Your task to perform on an android device: Clear the cart on amazon. Add apple airpods to the cart on amazon, then select checkout. Image 0: 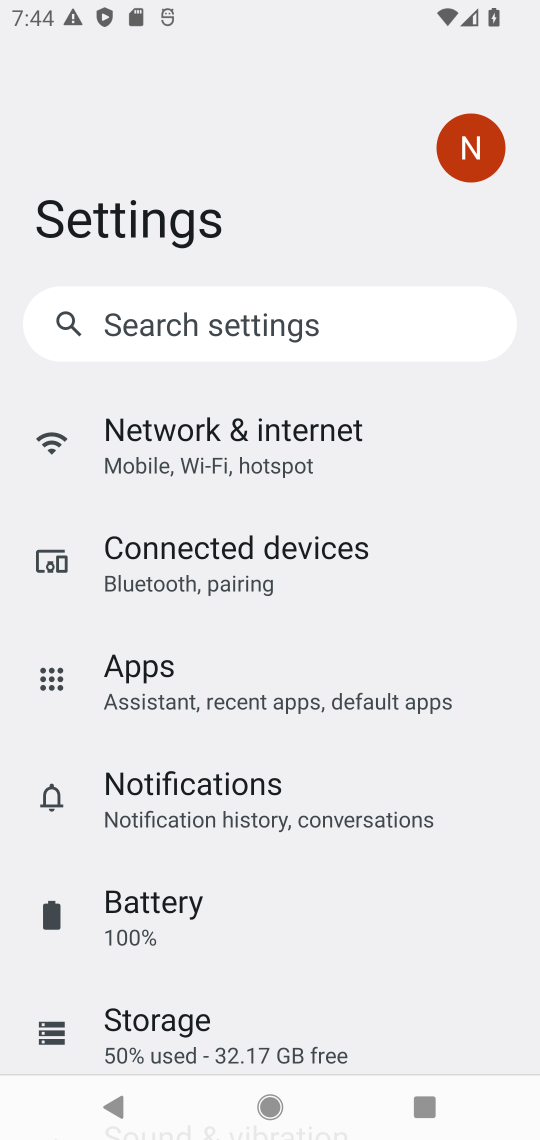
Step 0: press home button
Your task to perform on an android device: Clear the cart on amazon. Add apple airpods to the cart on amazon, then select checkout. Image 1: 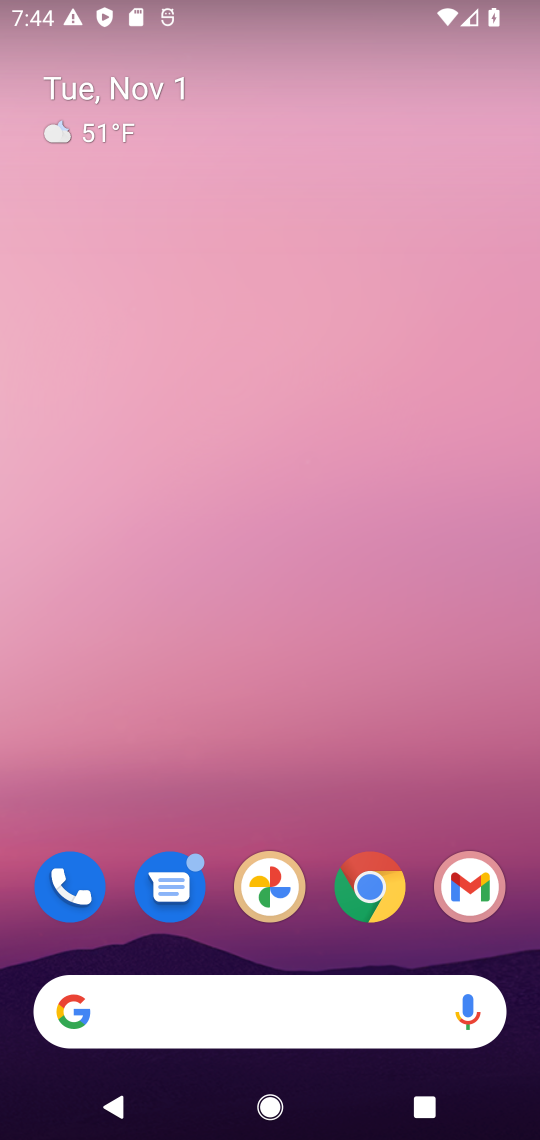
Step 1: drag from (259, 972) to (318, 254)
Your task to perform on an android device: Clear the cart on amazon. Add apple airpods to the cart on amazon, then select checkout. Image 2: 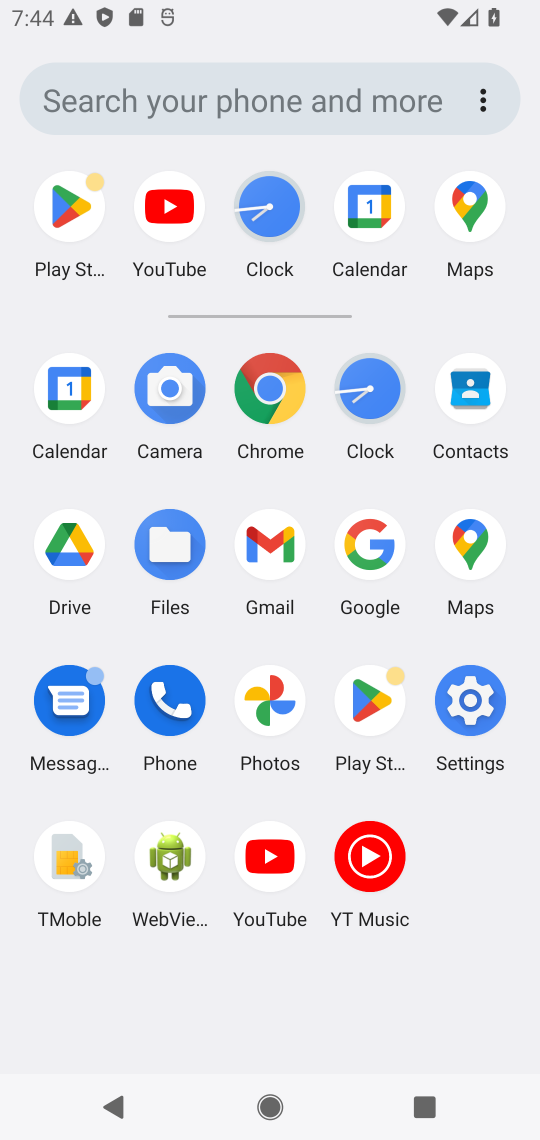
Step 2: click (364, 527)
Your task to perform on an android device: Clear the cart on amazon. Add apple airpods to the cart on amazon, then select checkout. Image 3: 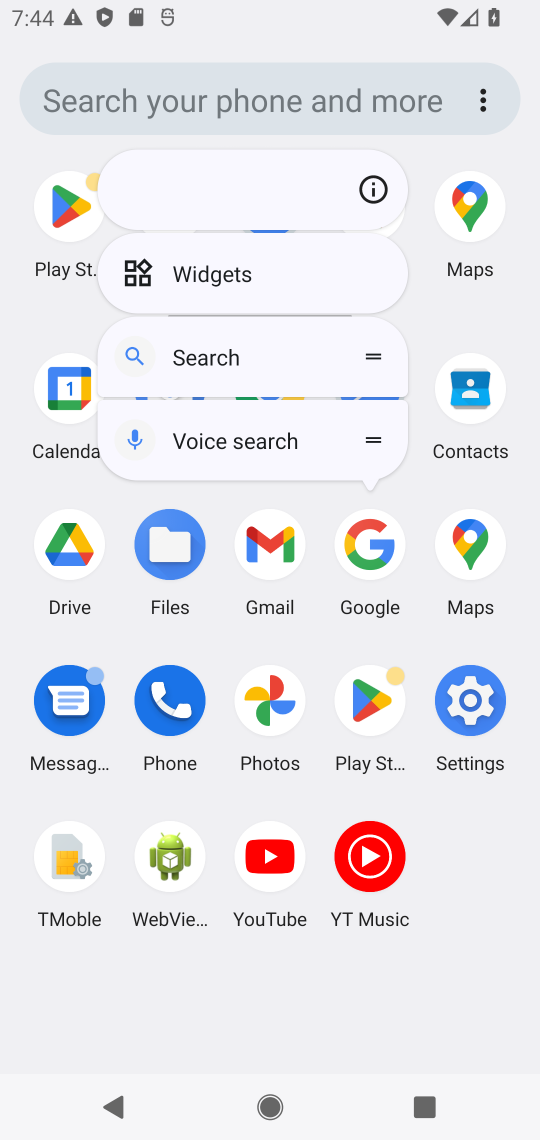
Step 3: click (356, 543)
Your task to perform on an android device: Clear the cart on amazon. Add apple airpods to the cart on amazon, then select checkout. Image 4: 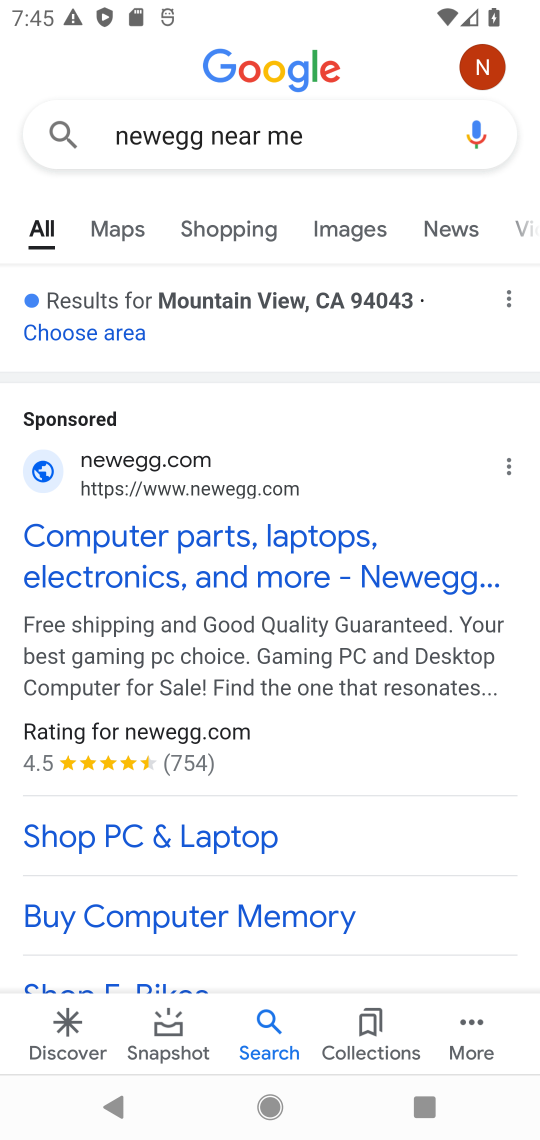
Step 4: click (210, 133)
Your task to perform on an android device: Clear the cart on amazon. Add apple airpods to the cart on amazon, then select checkout. Image 5: 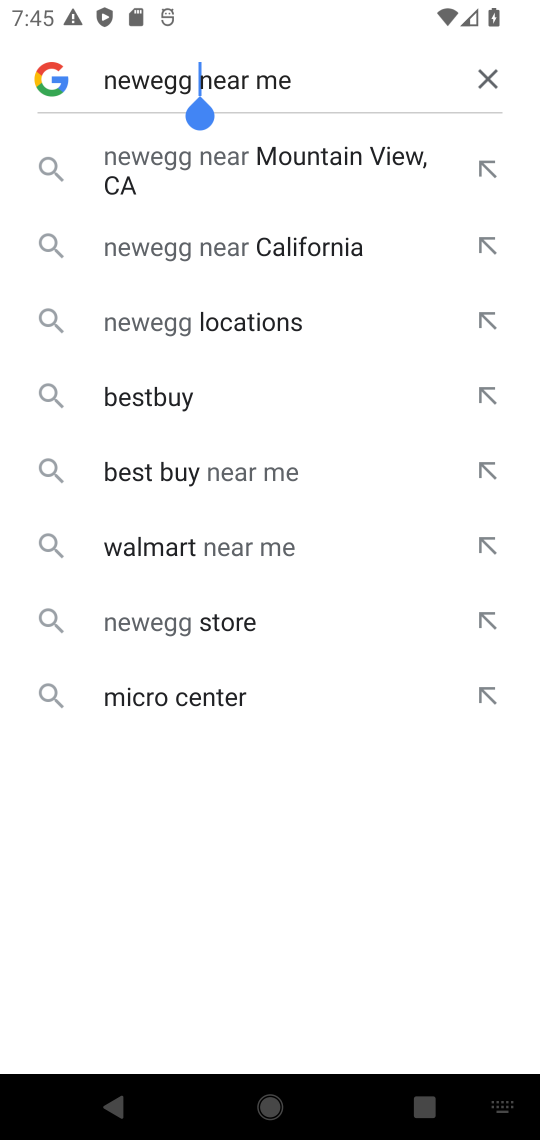
Step 5: click (480, 75)
Your task to perform on an android device: Clear the cart on amazon. Add apple airpods to the cart on amazon, then select checkout. Image 6: 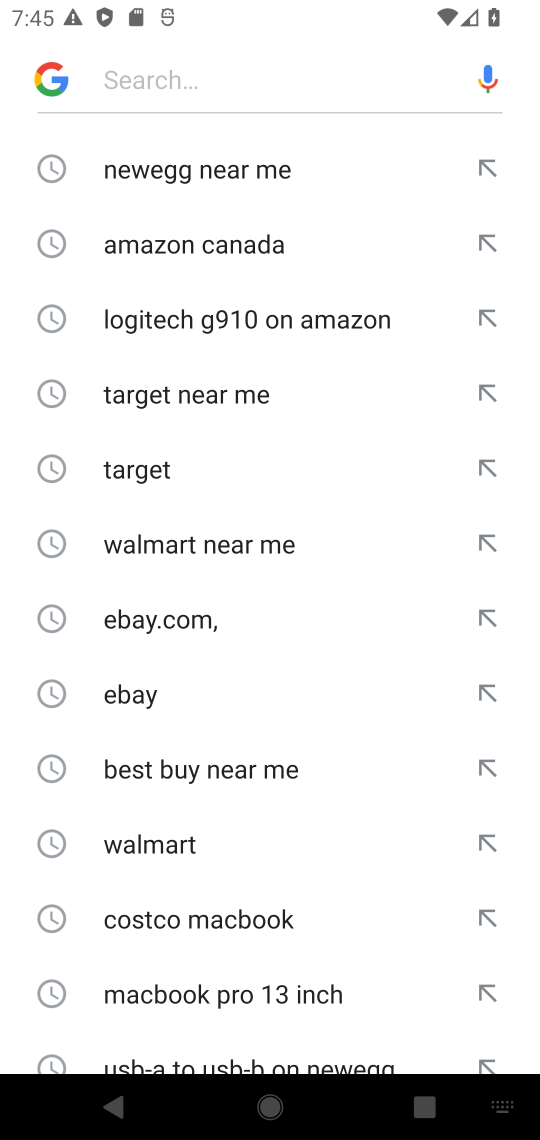
Step 6: click (192, 78)
Your task to perform on an android device: Clear the cart on amazon. Add apple airpods to the cart on amazon, then select checkout. Image 7: 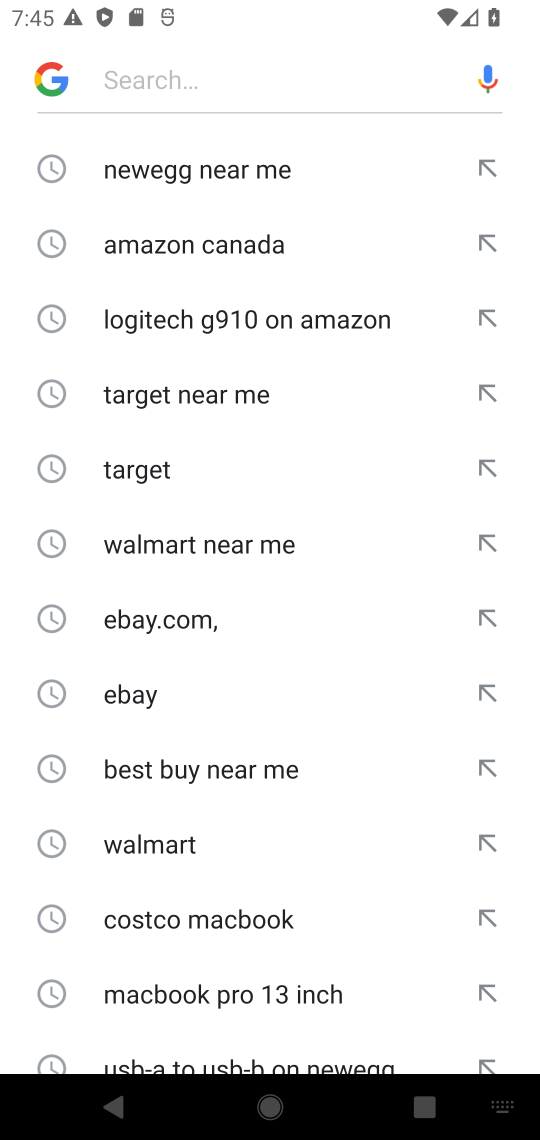
Step 7: type "amazon "
Your task to perform on an android device: Clear the cart on amazon. Add apple airpods to the cart on amazon, then select checkout. Image 8: 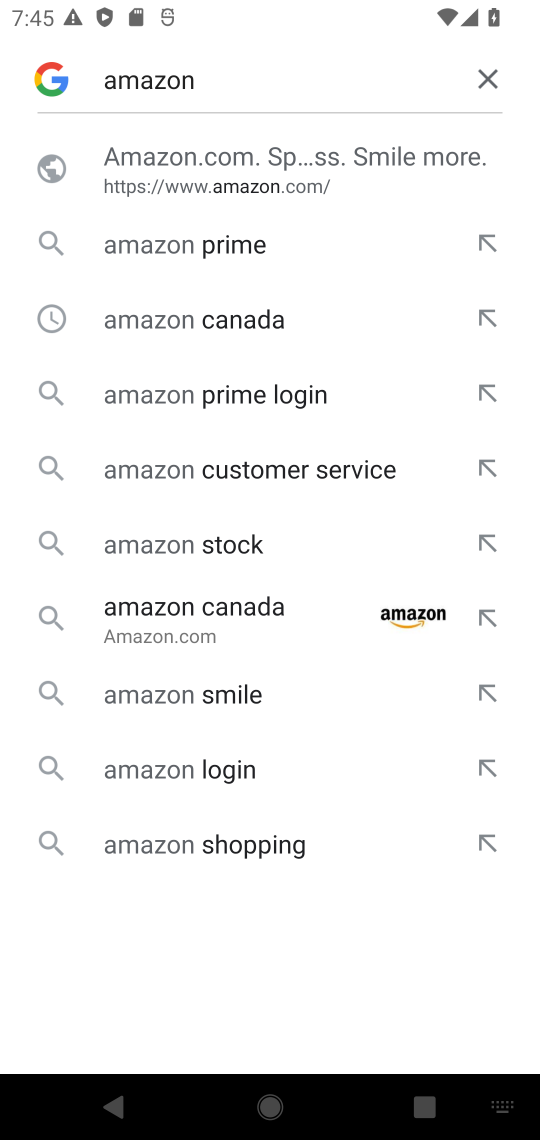
Step 8: click (215, 185)
Your task to perform on an android device: Clear the cart on amazon. Add apple airpods to the cart on amazon, then select checkout. Image 9: 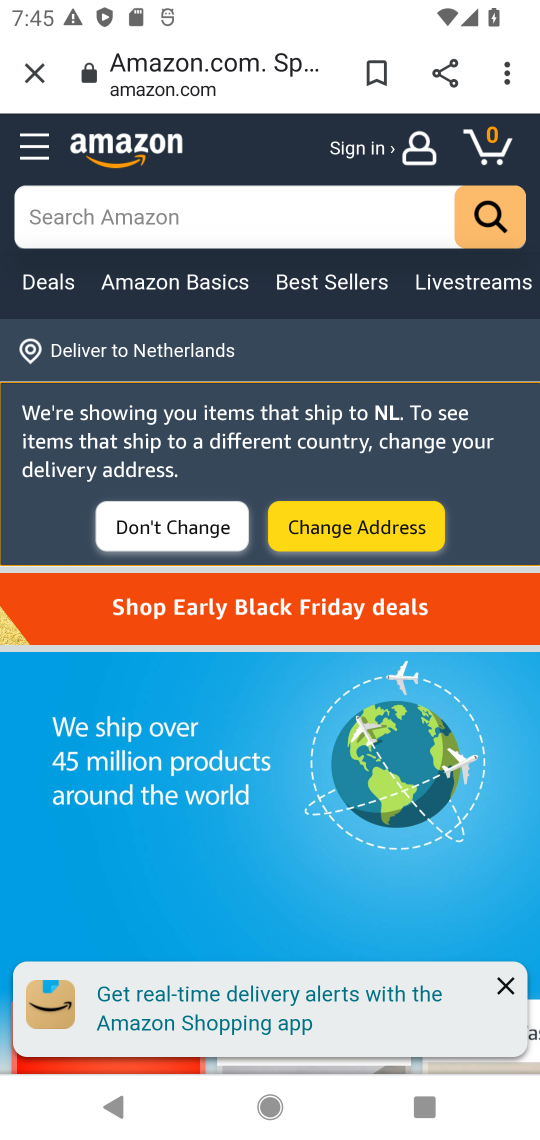
Step 9: click (227, 212)
Your task to perform on an android device: Clear the cart on amazon. Add apple airpods to the cart on amazon, then select checkout. Image 10: 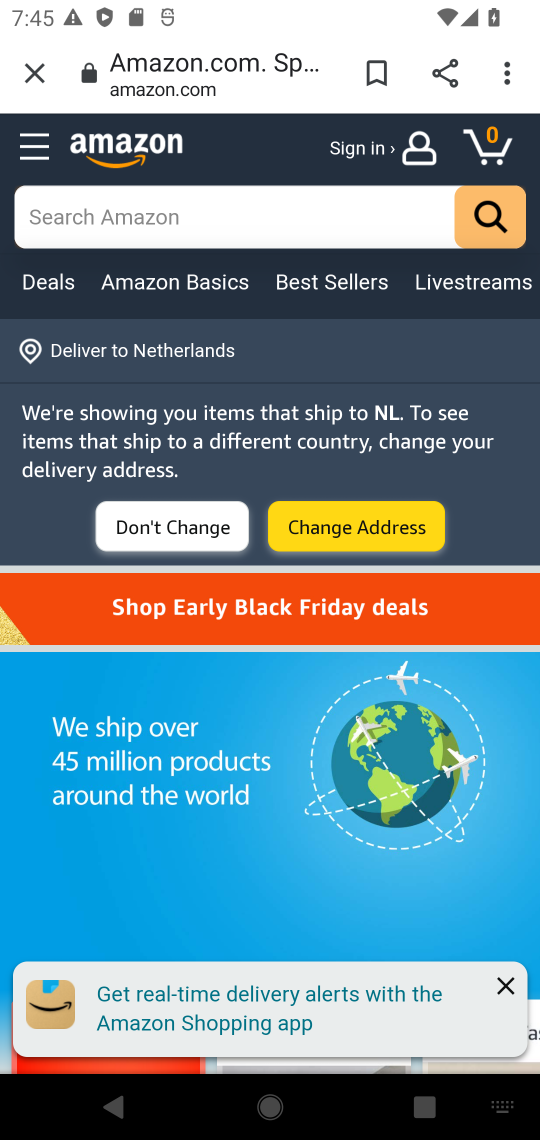
Step 10: type "airpods "
Your task to perform on an android device: Clear the cart on amazon. Add apple airpods to the cart on amazon, then select checkout. Image 11: 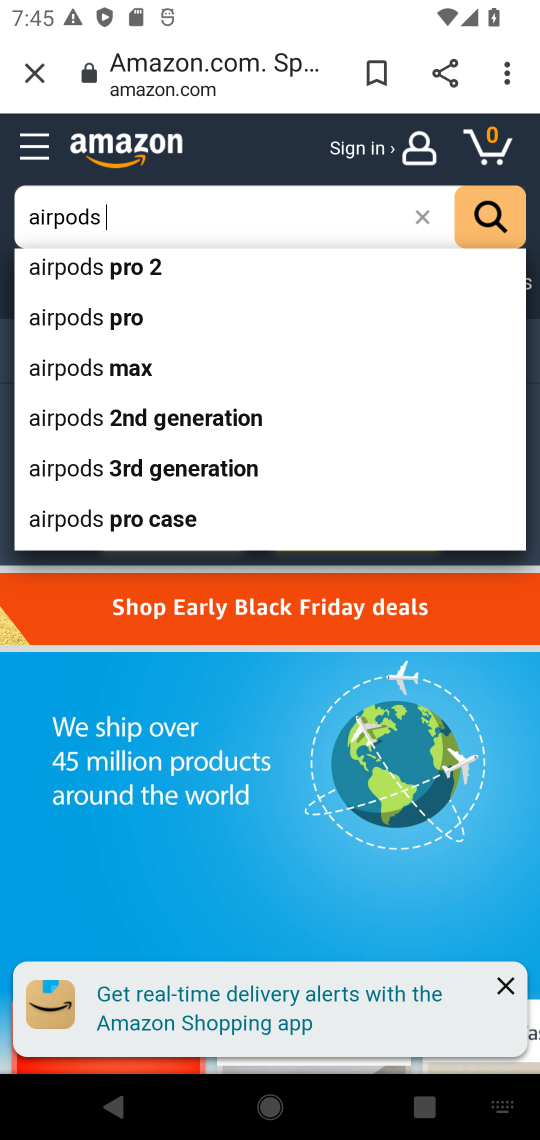
Step 11: click (103, 318)
Your task to perform on an android device: Clear the cart on amazon. Add apple airpods to the cart on amazon, then select checkout. Image 12: 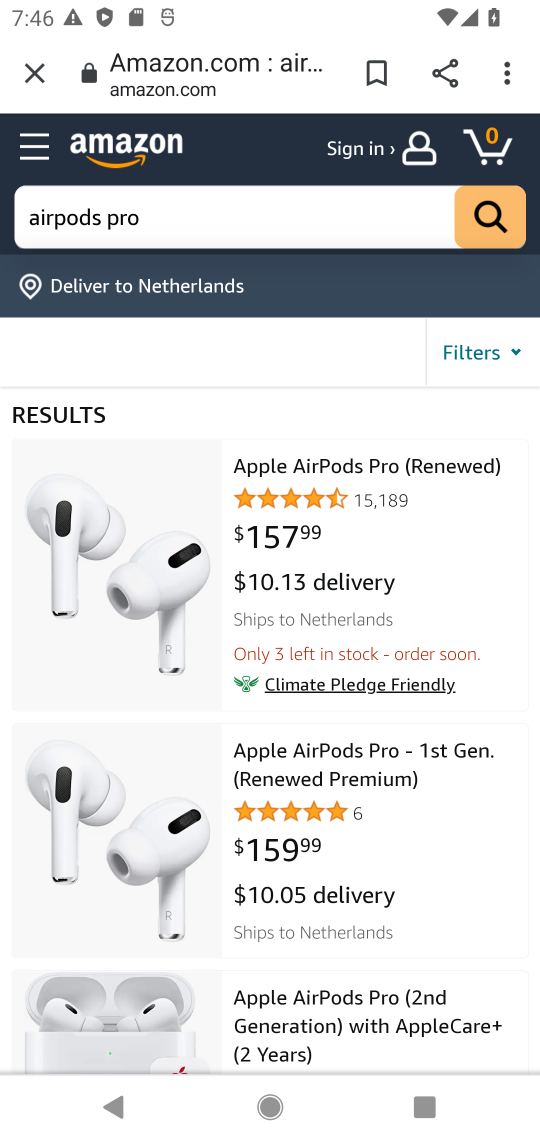
Step 12: click (376, 468)
Your task to perform on an android device: Clear the cart on amazon. Add apple airpods to the cart on amazon, then select checkout. Image 13: 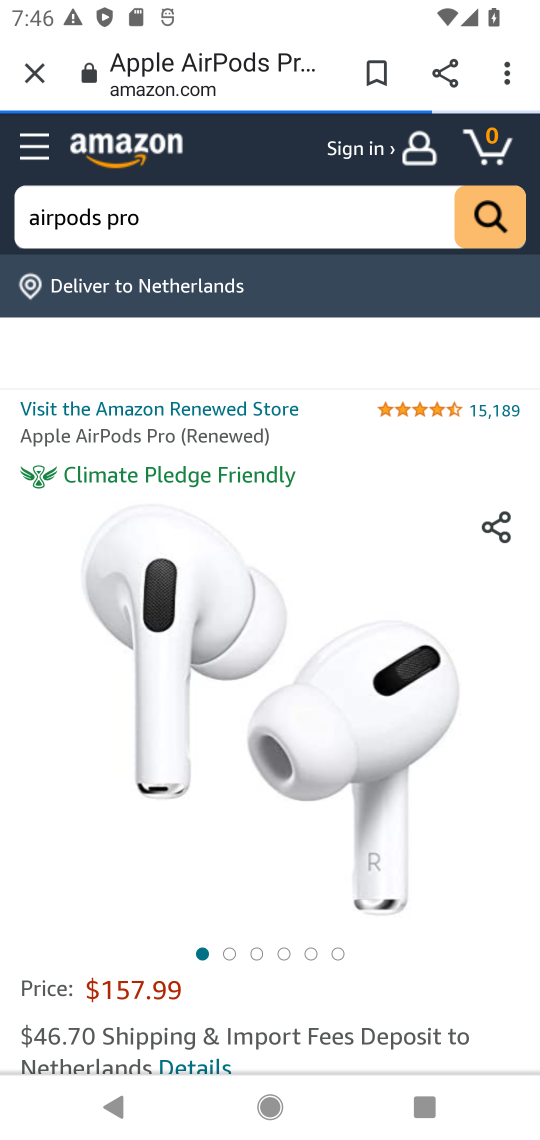
Step 13: drag from (347, 981) to (377, 541)
Your task to perform on an android device: Clear the cart on amazon. Add apple airpods to the cart on amazon, then select checkout. Image 14: 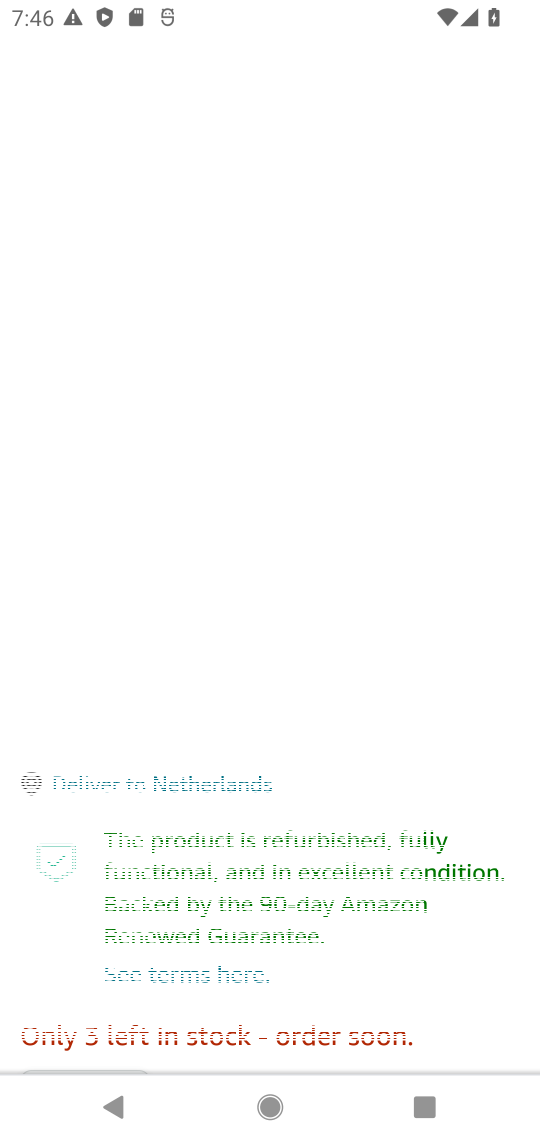
Step 14: drag from (376, 944) to (398, 621)
Your task to perform on an android device: Clear the cart on amazon. Add apple airpods to the cart on amazon, then select checkout. Image 15: 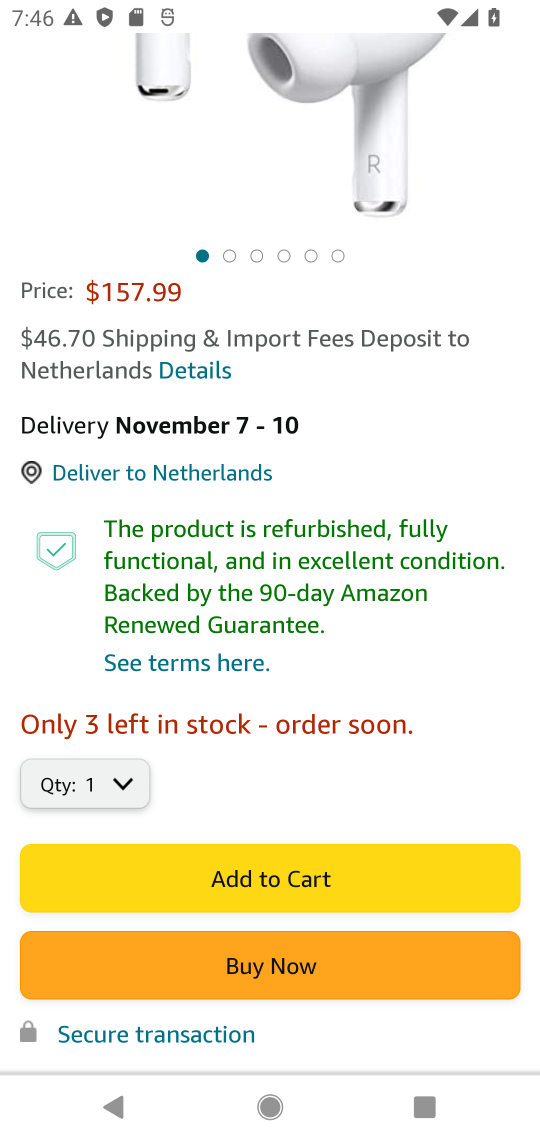
Step 15: click (313, 876)
Your task to perform on an android device: Clear the cart on amazon. Add apple airpods to the cart on amazon, then select checkout. Image 16: 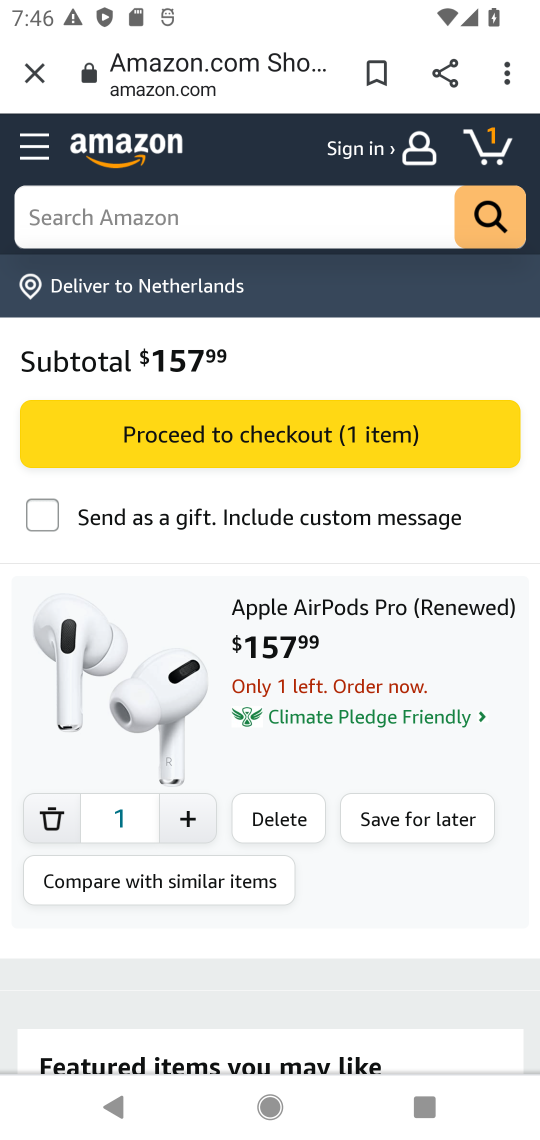
Step 16: task complete